Your task to perform on an android device: change alarm snooze length Image 0: 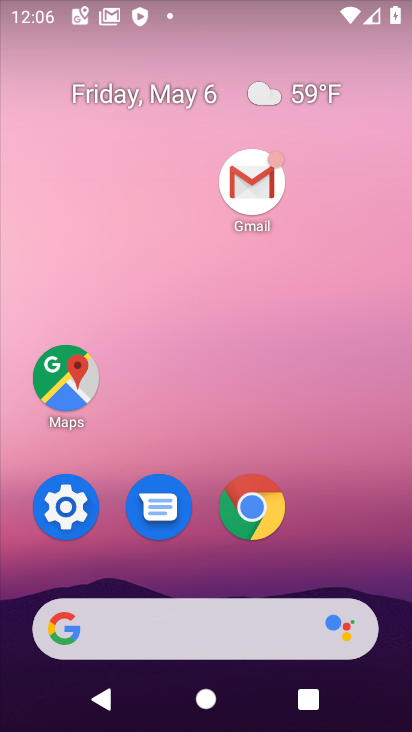
Step 0: drag from (330, 520) to (281, 111)
Your task to perform on an android device: change alarm snooze length Image 1: 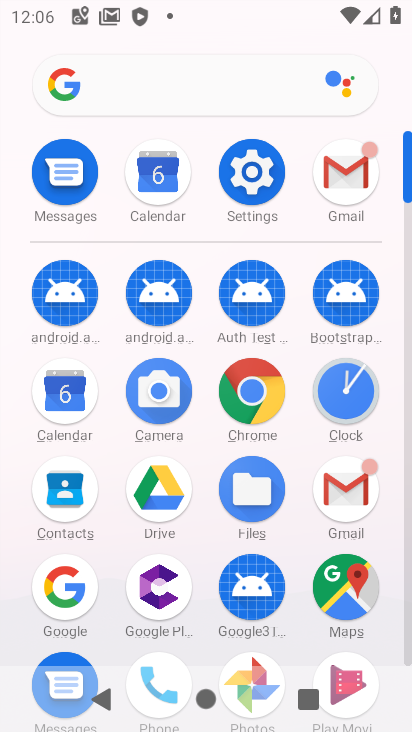
Step 1: click (350, 396)
Your task to perform on an android device: change alarm snooze length Image 2: 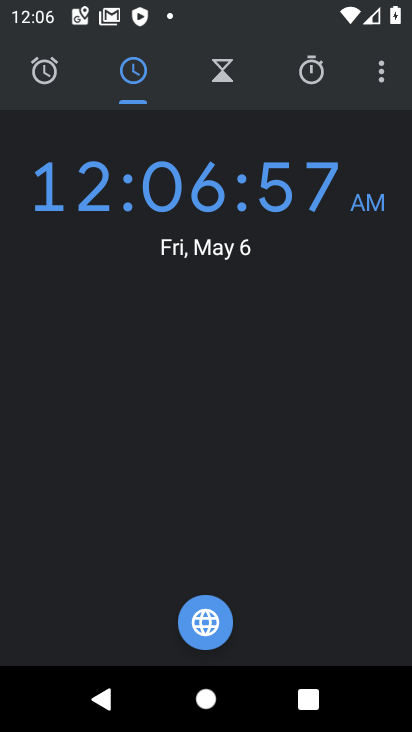
Step 2: click (379, 70)
Your task to perform on an android device: change alarm snooze length Image 3: 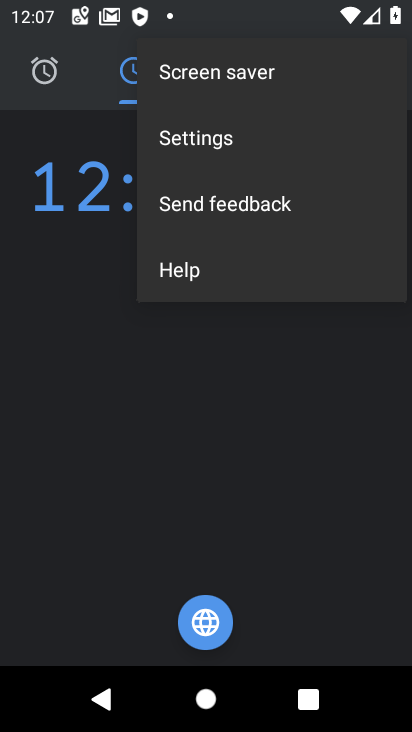
Step 3: click (194, 139)
Your task to perform on an android device: change alarm snooze length Image 4: 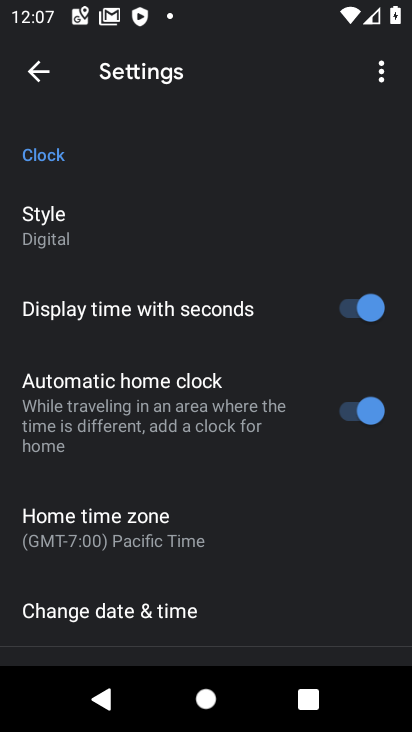
Step 4: drag from (258, 489) to (197, 167)
Your task to perform on an android device: change alarm snooze length Image 5: 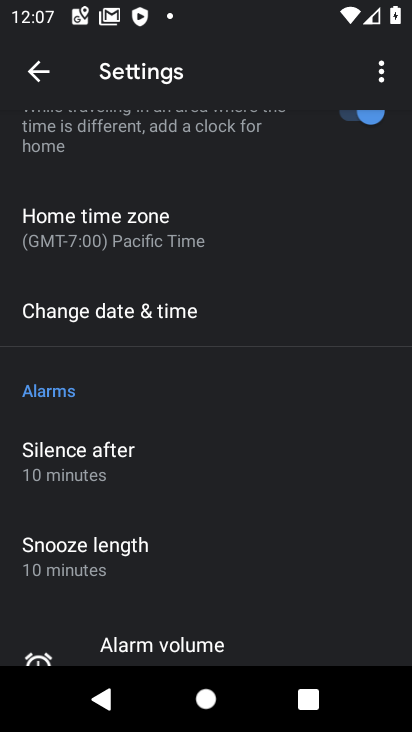
Step 5: drag from (158, 558) to (121, 226)
Your task to perform on an android device: change alarm snooze length Image 6: 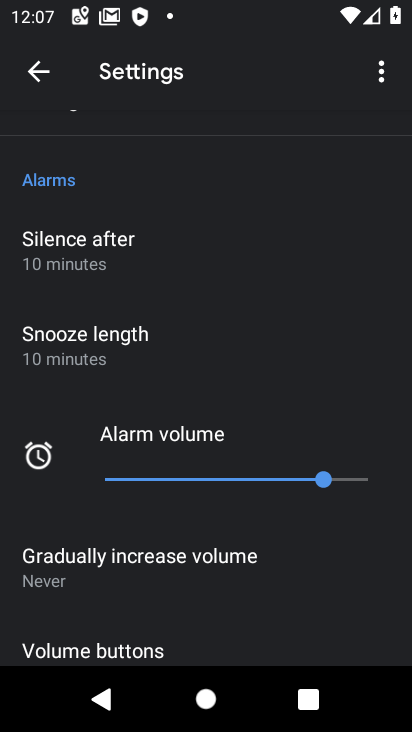
Step 6: click (108, 342)
Your task to perform on an android device: change alarm snooze length Image 7: 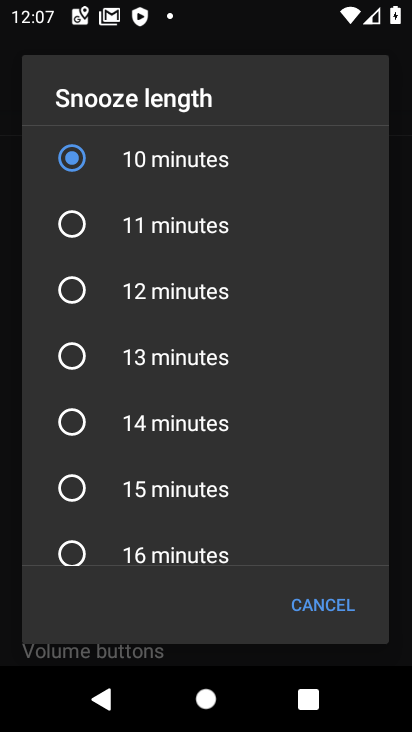
Step 7: click (82, 288)
Your task to perform on an android device: change alarm snooze length Image 8: 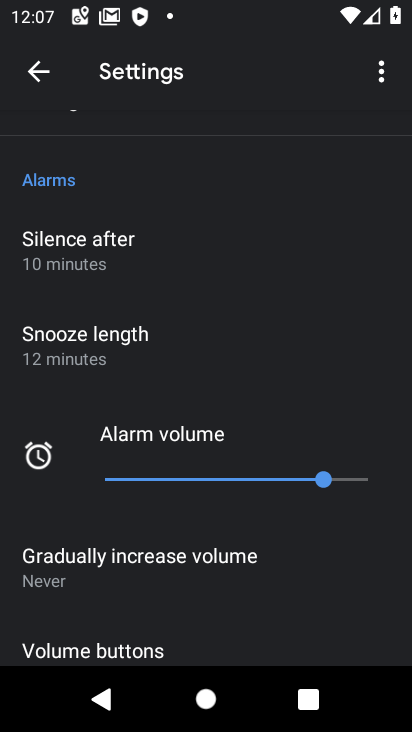
Step 8: task complete